Your task to perform on an android device: Go to battery settings Image 0: 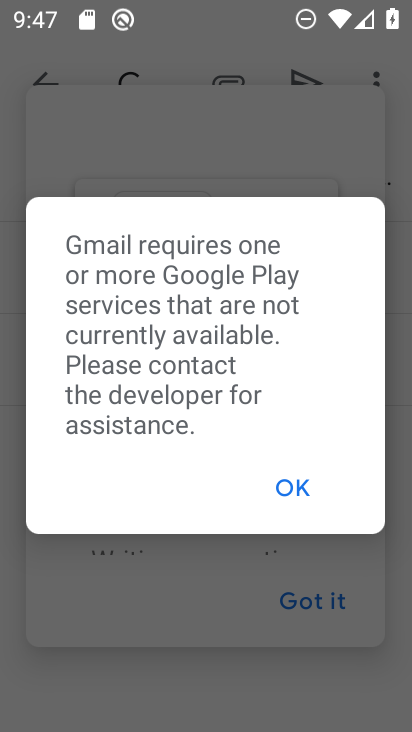
Step 0: press home button
Your task to perform on an android device: Go to battery settings Image 1: 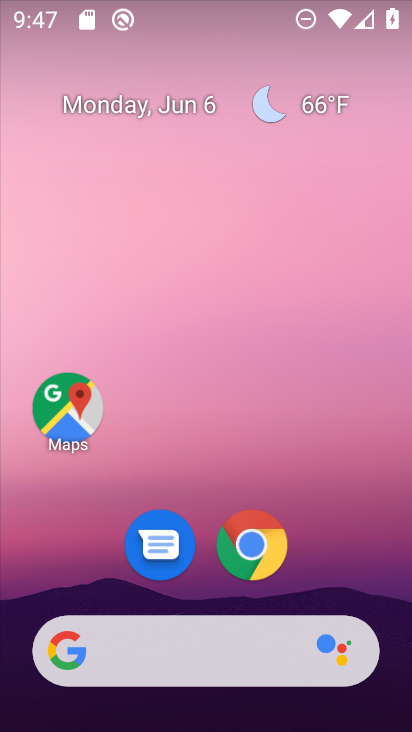
Step 1: drag from (194, 602) to (168, 239)
Your task to perform on an android device: Go to battery settings Image 2: 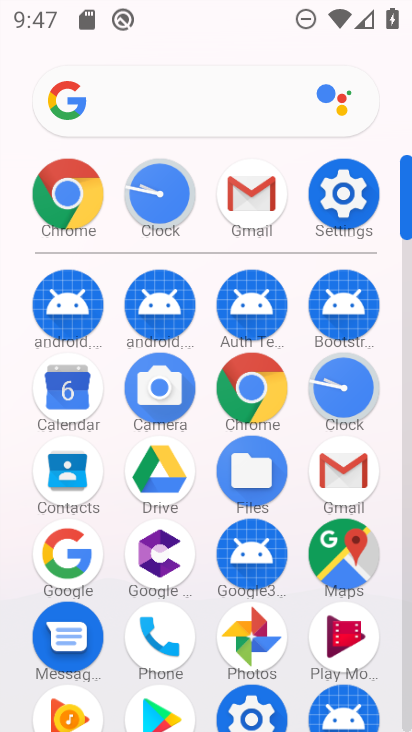
Step 2: click (341, 198)
Your task to perform on an android device: Go to battery settings Image 3: 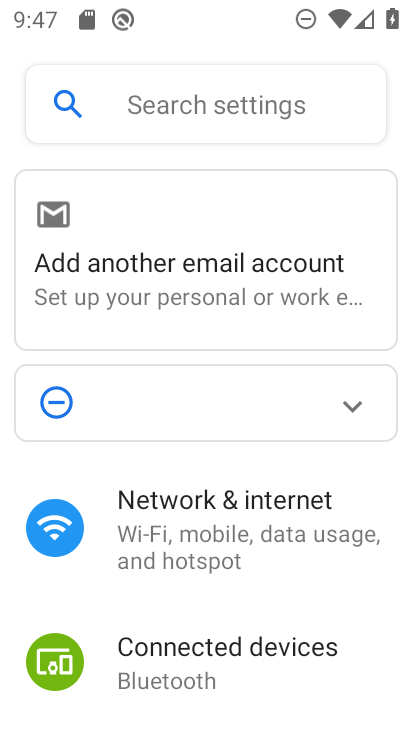
Step 3: drag from (277, 676) to (189, 309)
Your task to perform on an android device: Go to battery settings Image 4: 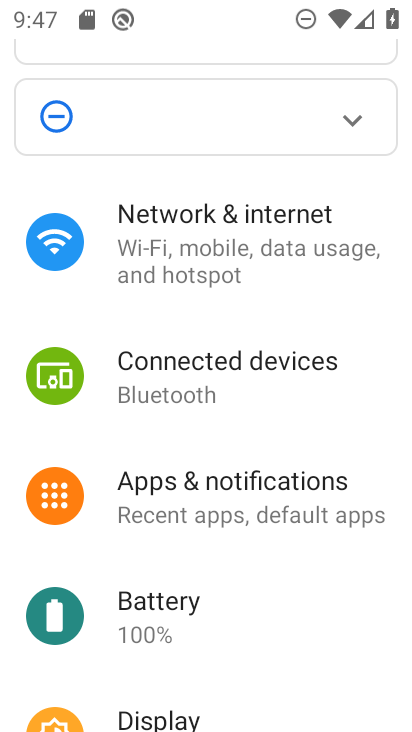
Step 4: click (189, 610)
Your task to perform on an android device: Go to battery settings Image 5: 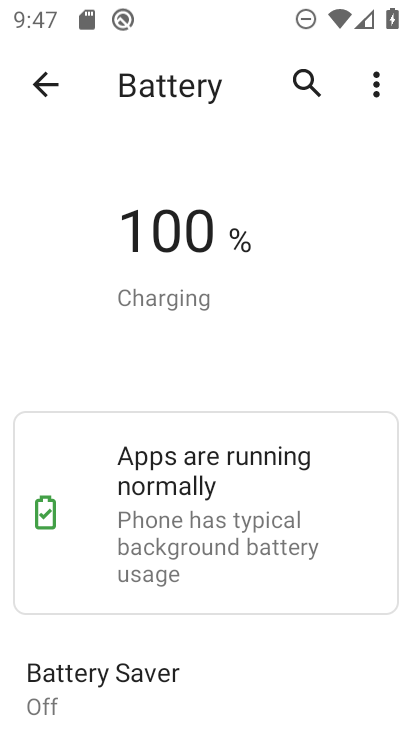
Step 5: task complete